Your task to perform on an android device: What is the recent news? Image 0: 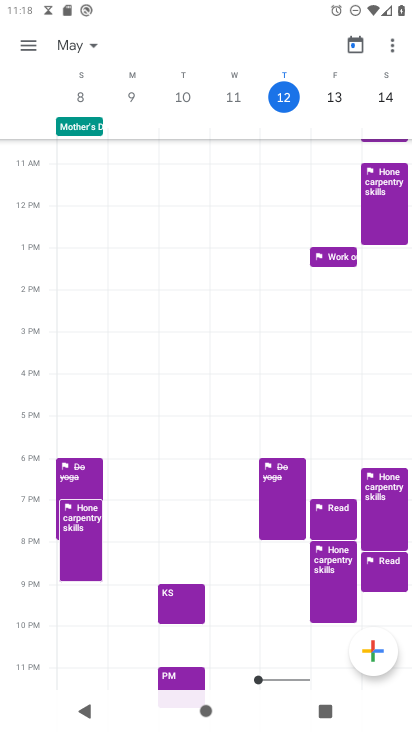
Step 0: press back button
Your task to perform on an android device: What is the recent news? Image 1: 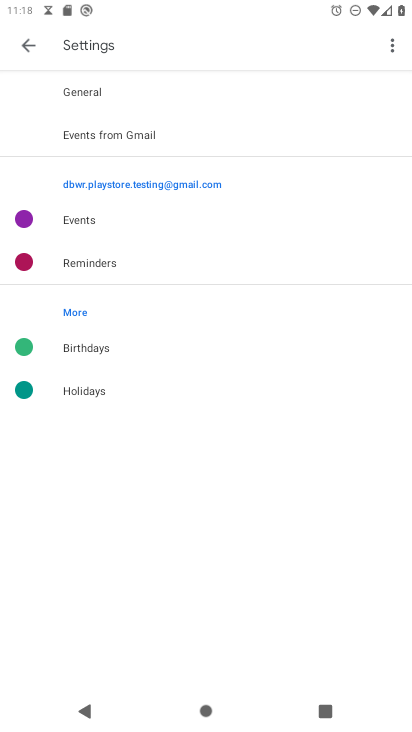
Step 1: press back button
Your task to perform on an android device: What is the recent news? Image 2: 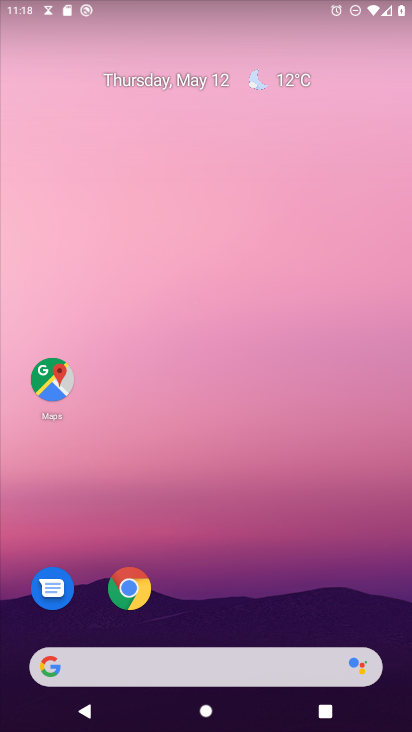
Step 2: drag from (303, 523) to (230, 79)
Your task to perform on an android device: What is the recent news? Image 3: 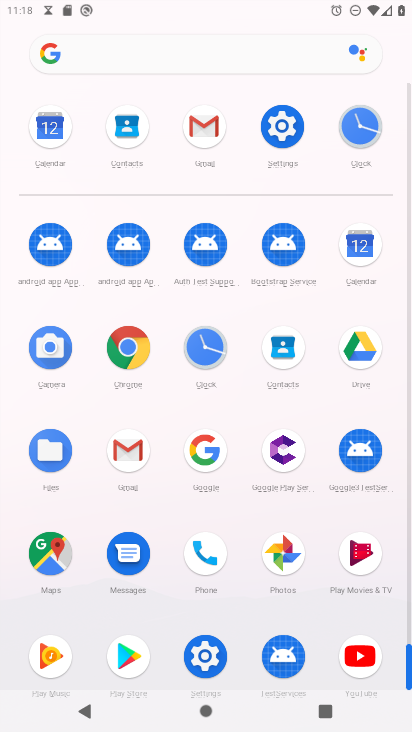
Step 3: click (197, 451)
Your task to perform on an android device: What is the recent news? Image 4: 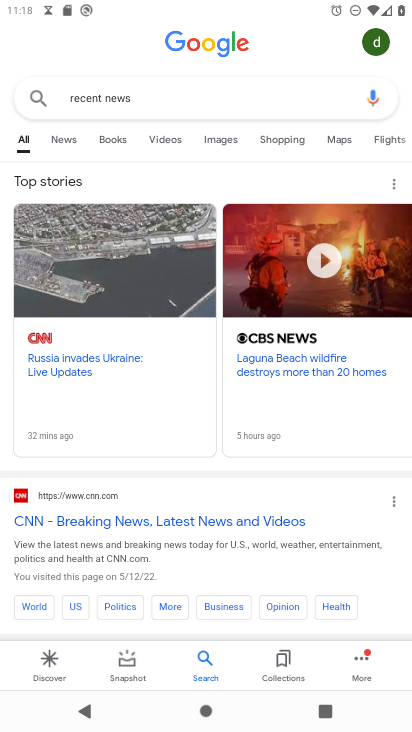
Step 4: task complete